Your task to perform on an android device: What's the weather like in Chicago? Image 0: 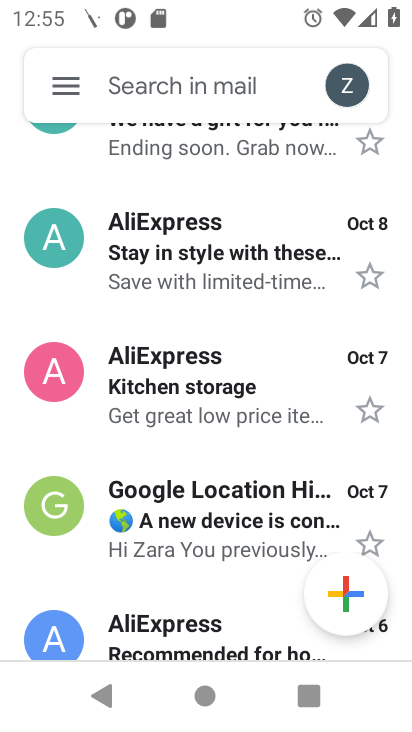
Step 0: press home button
Your task to perform on an android device: What's the weather like in Chicago? Image 1: 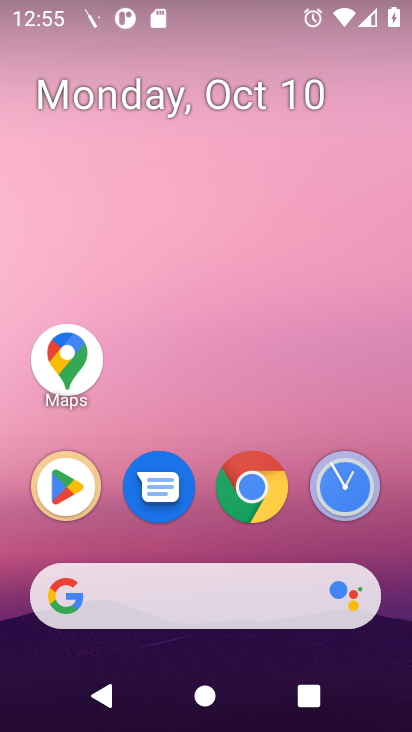
Step 1: click (258, 502)
Your task to perform on an android device: What's the weather like in Chicago? Image 2: 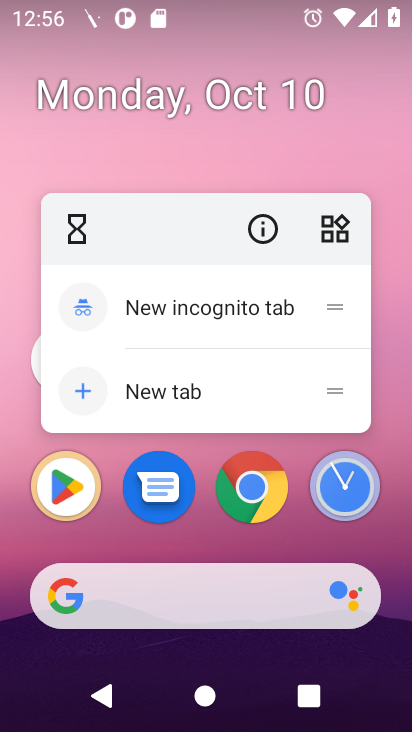
Step 2: click (258, 507)
Your task to perform on an android device: What's the weather like in Chicago? Image 3: 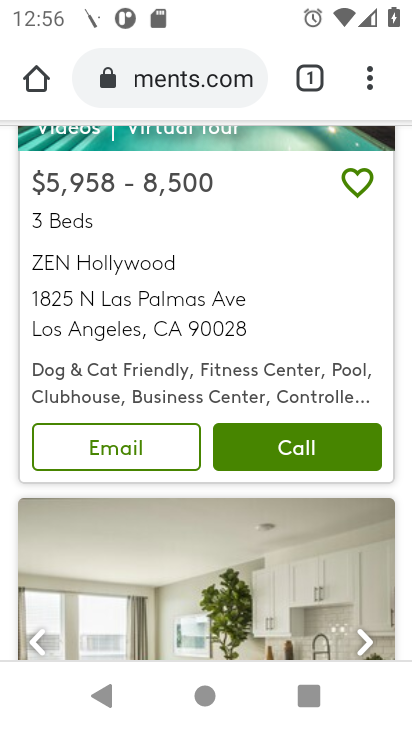
Step 3: click (230, 81)
Your task to perform on an android device: What's the weather like in Chicago? Image 4: 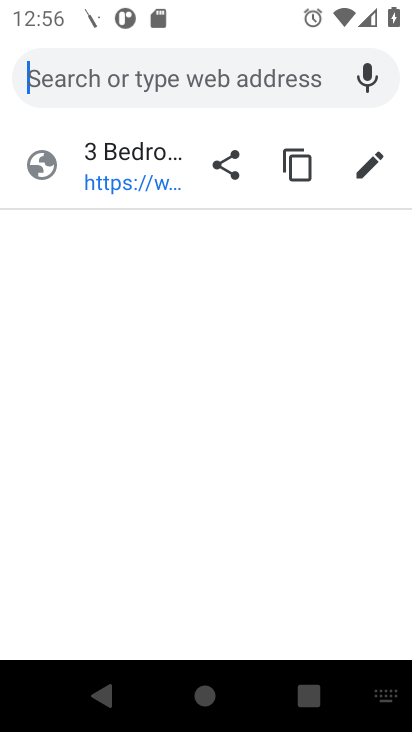
Step 4: type "weather in Chicago"
Your task to perform on an android device: What's the weather like in Chicago? Image 5: 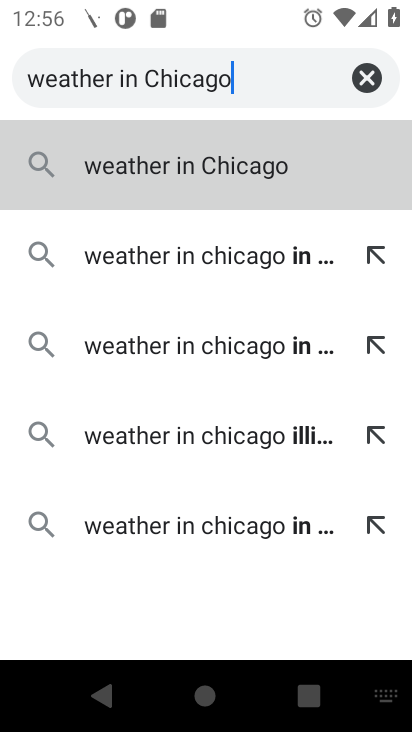
Step 5: press enter
Your task to perform on an android device: What's the weather like in Chicago? Image 6: 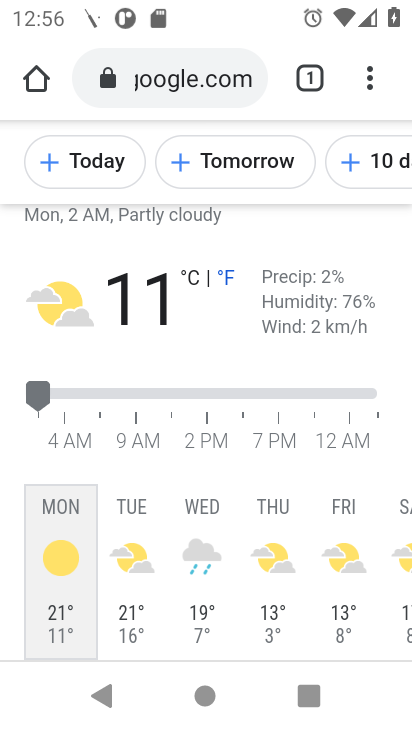
Step 6: task complete